Your task to perform on an android device: open app "Facebook Lite" (install if not already installed) Image 0: 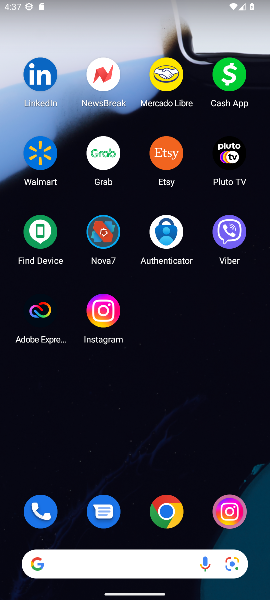
Step 0: drag from (139, 548) to (154, 118)
Your task to perform on an android device: open app "Facebook Lite" (install if not already installed) Image 1: 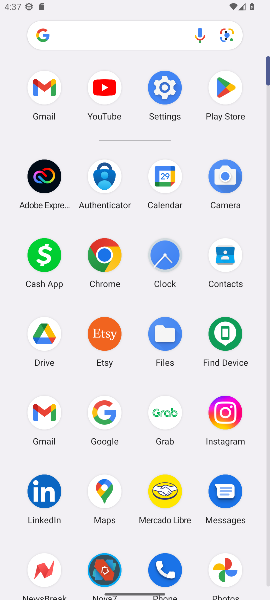
Step 1: click (220, 93)
Your task to perform on an android device: open app "Facebook Lite" (install if not already installed) Image 2: 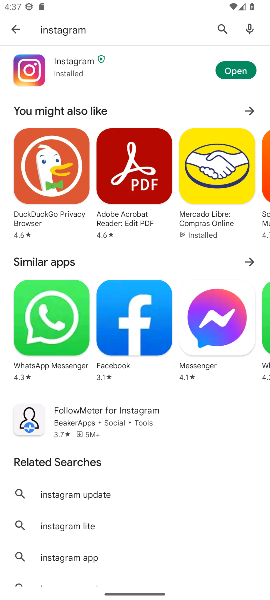
Step 2: click (16, 29)
Your task to perform on an android device: open app "Facebook Lite" (install if not already installed) Image 3: 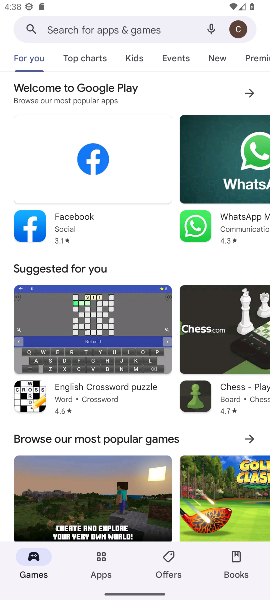
Step 3: click (101, 29)
Your task to perform on an android device: open app "Facebook Lite" (install if not already installed) Image 4: 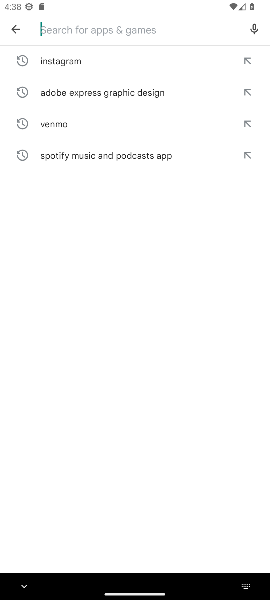
Step 4: type "Instagram"
Your task to perform on an android device: open app "Facebook Lite" (install if not already installed) Image 5: 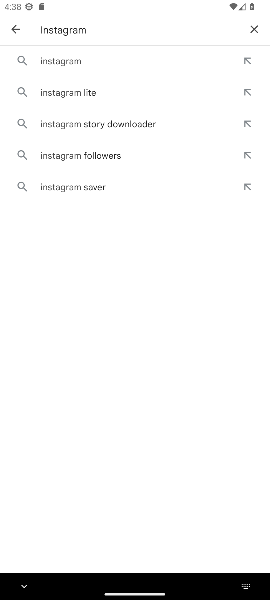
Step 5: click (248, 32)
Your task to perform on an android device: open app "Facebook Lite" (install if not already installed) Image 6: 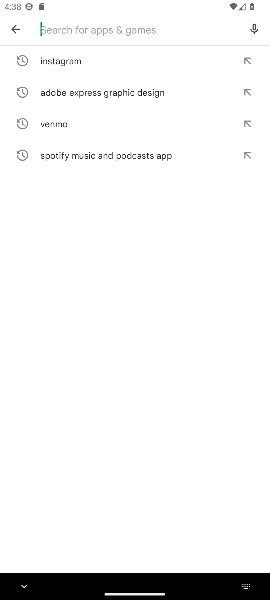
Step 6: type "Facebook Lite"
Your task to perform on an android device: open app "Facebook Lite" (install if not already installed) Image 7: 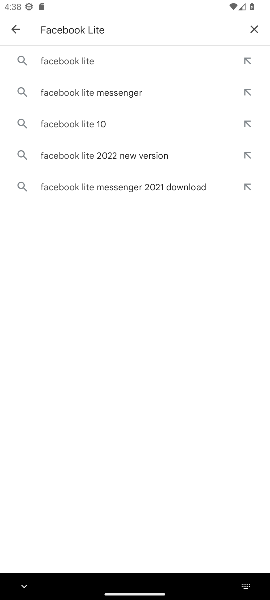
Step 7: click (87, 63)
Your task to perform on an android device: open app "Facebook Lite" (install if not already installed) Image 8: 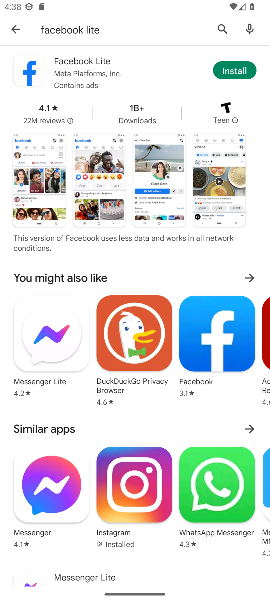
Step 8: click (231, 70)
Your task to perform on an android device: open app "Facebook Lite" (install if not already installed) Image 9: 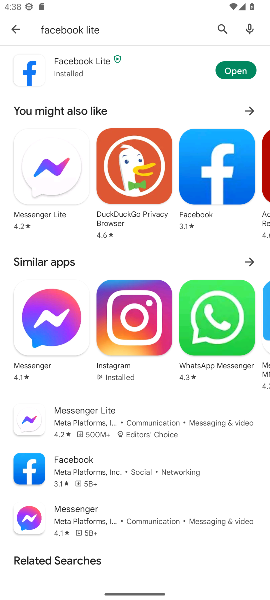
Step 9: click (227, 72)
Your task to perform on an android device: open app "Facebook Lite" (install if not already installed) Image 10: 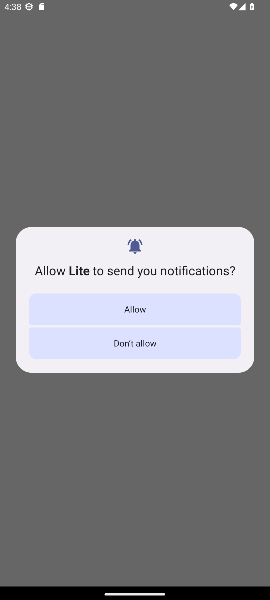
Step 10: click (156, 346)
Your task to perform on an android device: open app "Facebook Lite" (install if not already installed) Image 11: 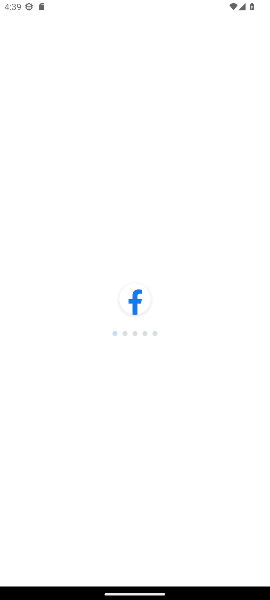
Step 11: task complete